Your task to perform on an android device: Clear the cart on newegg. Image 0: 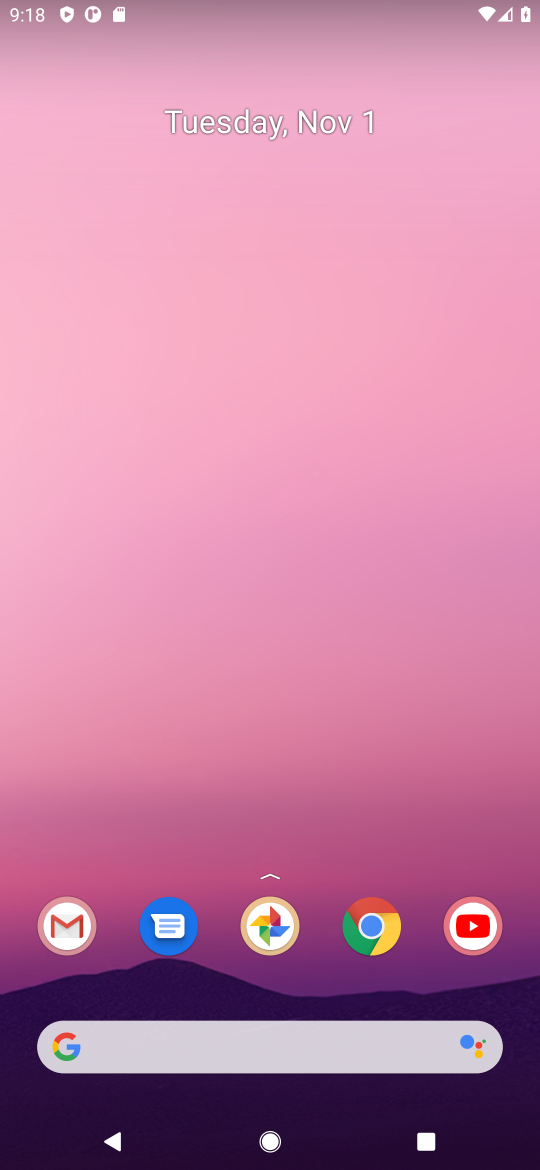
Step 0: press home button
Your task to perform on an android device: Clear the cart on newegg. Image 1: 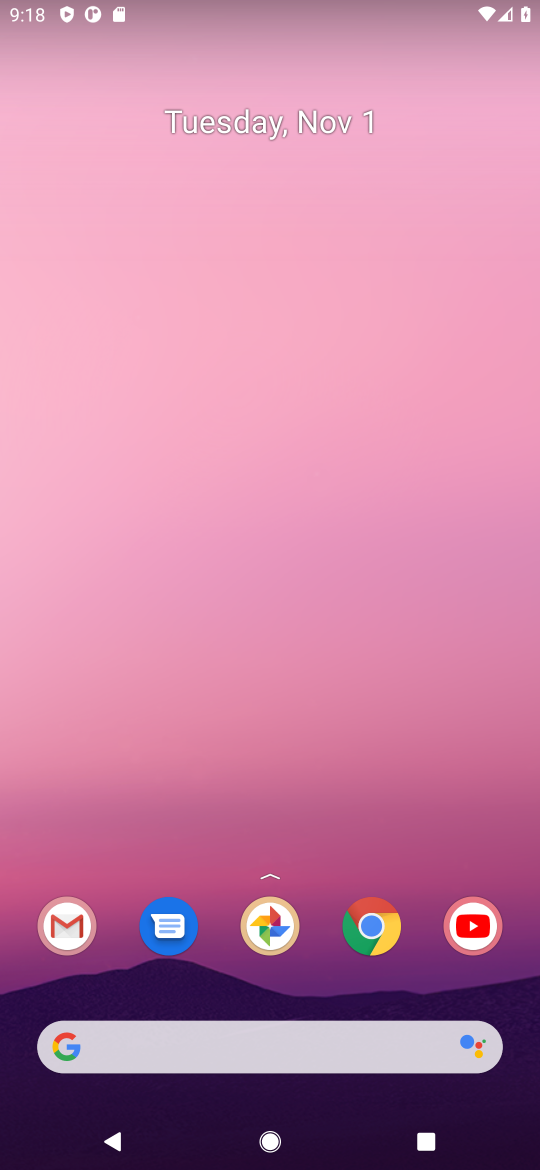
Step 1: click (363, 905)
Your task to perform on an android device: Clear the cart on newegg. Image 2: 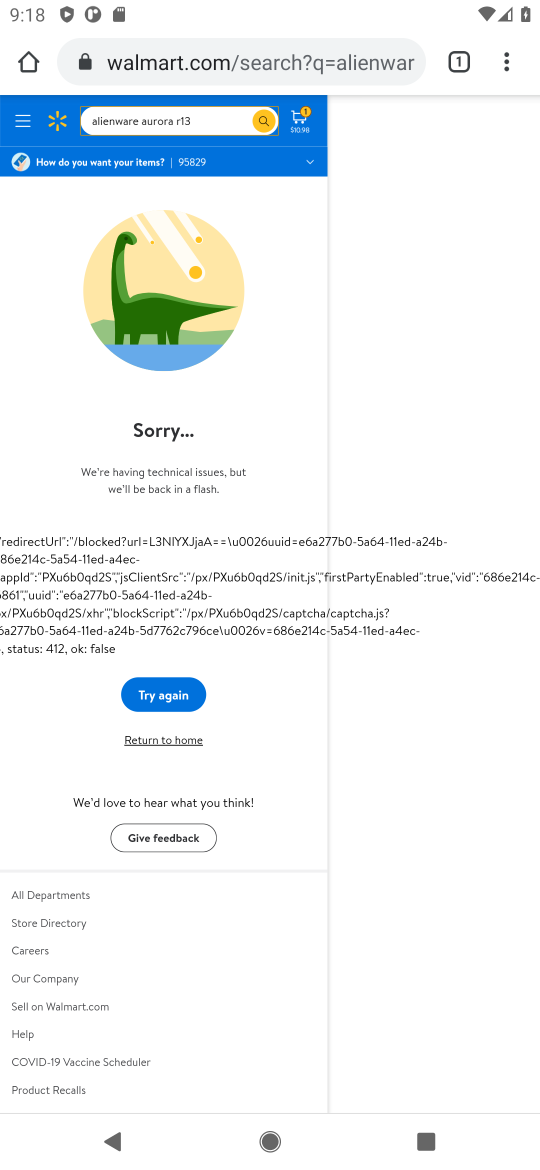
Step 2: click (180, 61)
Your task to perform on an android device: Clear the cart on newegg. Image 3: 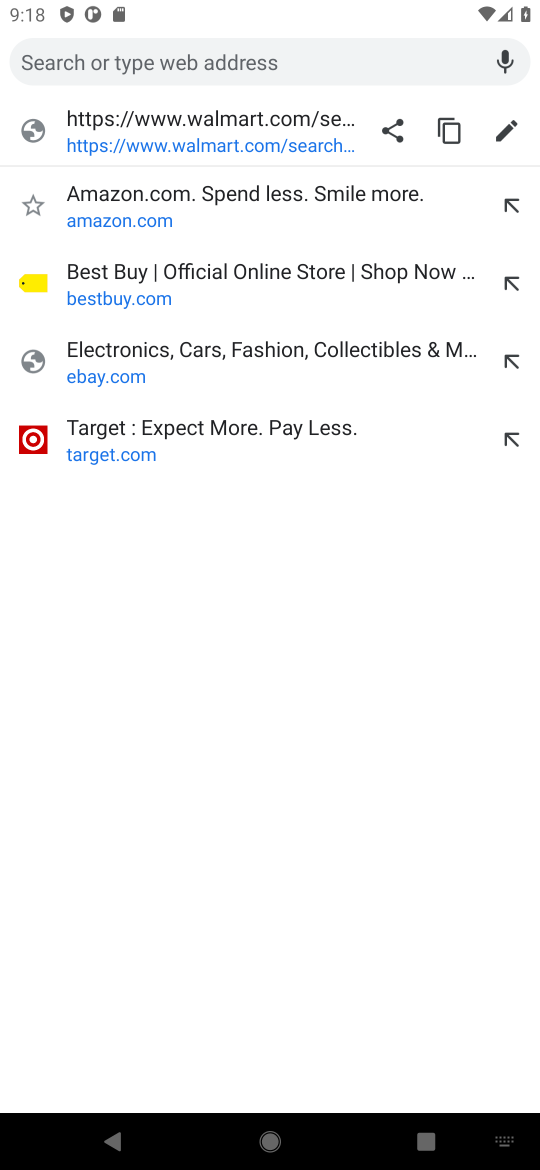
Step 3: type "newegg"
Your task to perform on an android device: Clear the cart on newegg. Image 4: 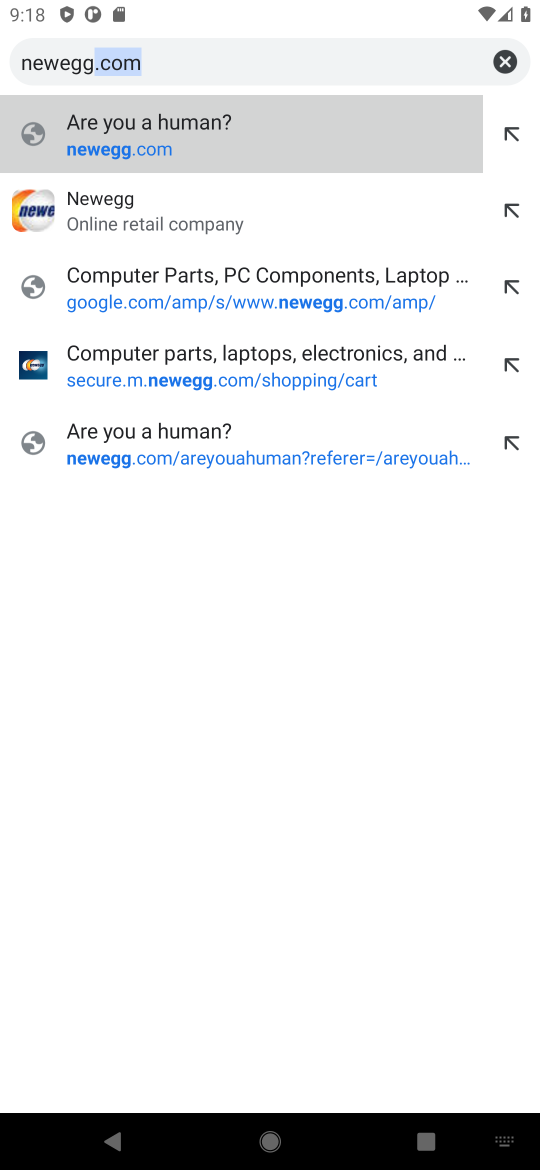
Step 4: type ""
Your task to perform on an android device: Clear the cart on newegg. Image 5: 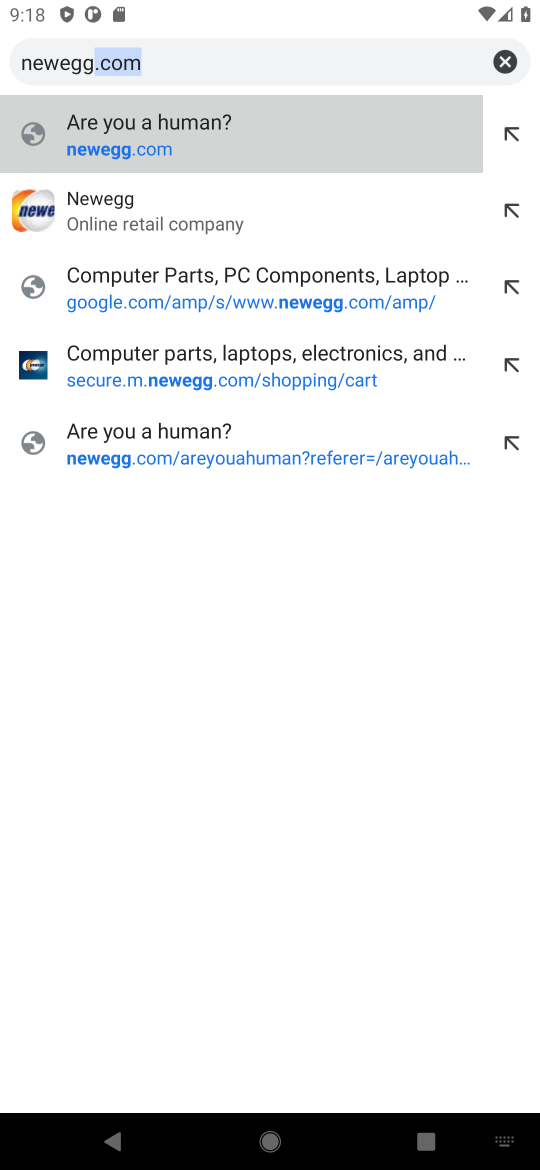
Step 5: click (101, 222)
Your task to perform on an android device: Clear the cart on newegg. Image 6: 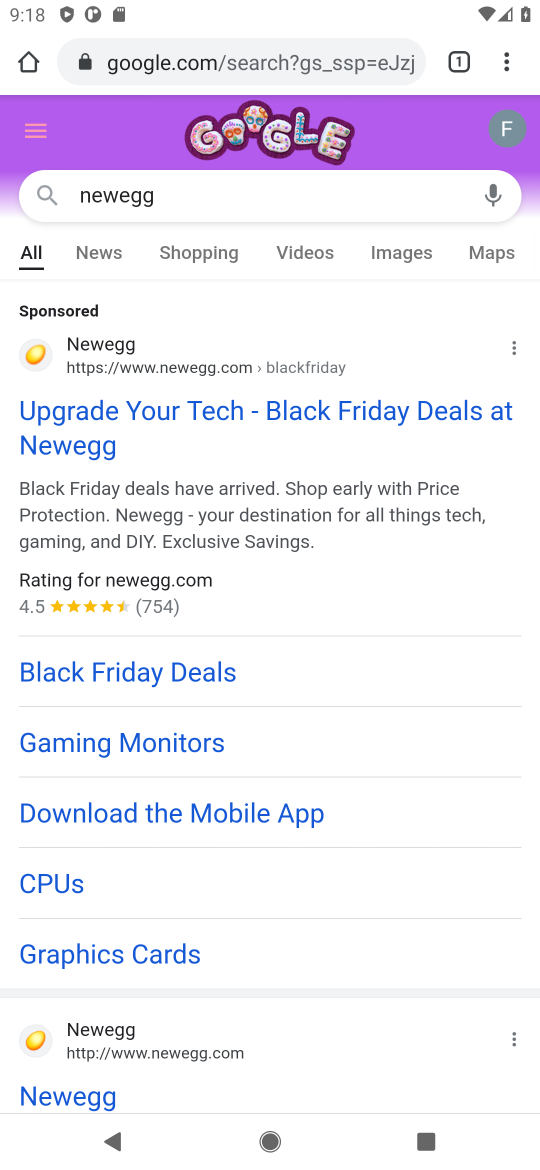
Step 6: drag from (172, 587) to (166, 188)
Your task to perform on an android device: Clear the cart on newegg. Image 7: 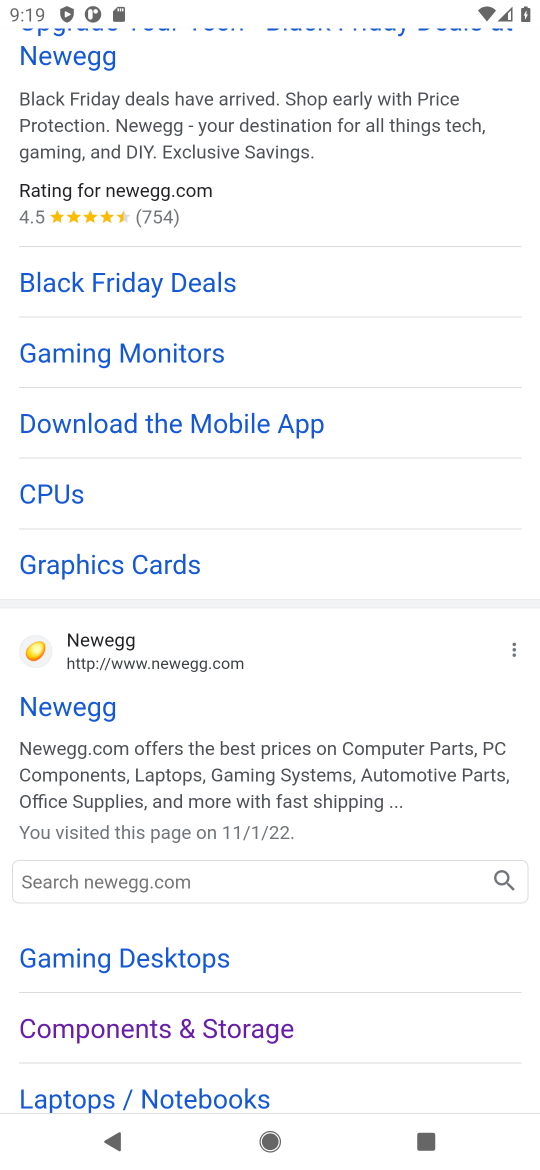
Step 7: click (71, 704)
Your task to perform on an android device: Clear the cart on newegg. Image 8: 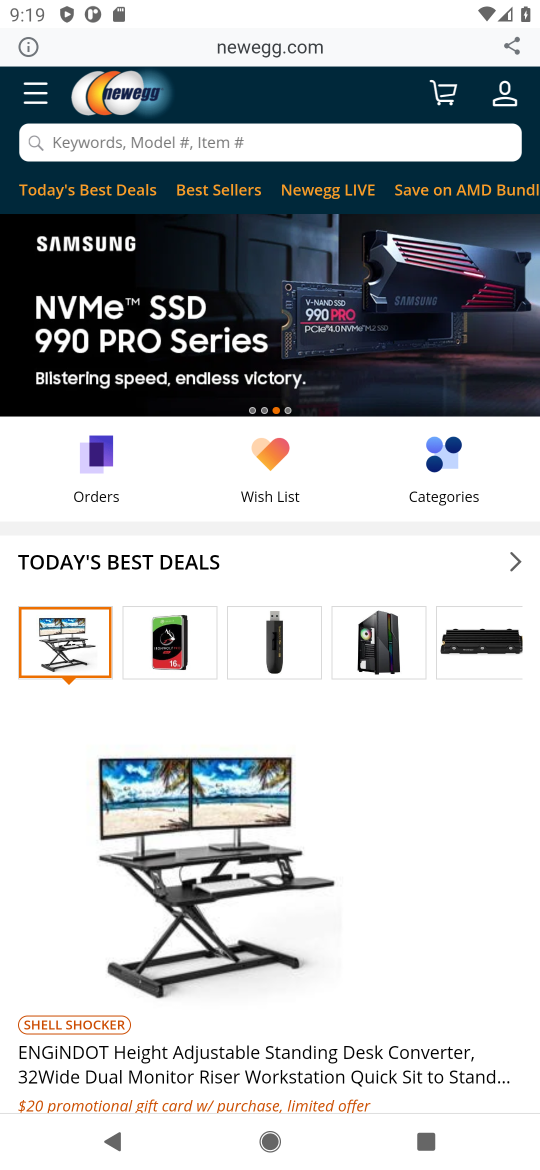
Step 8: click (261, 147)
Your task to perform on an android device: Clear the cart on newegg. Image 9: 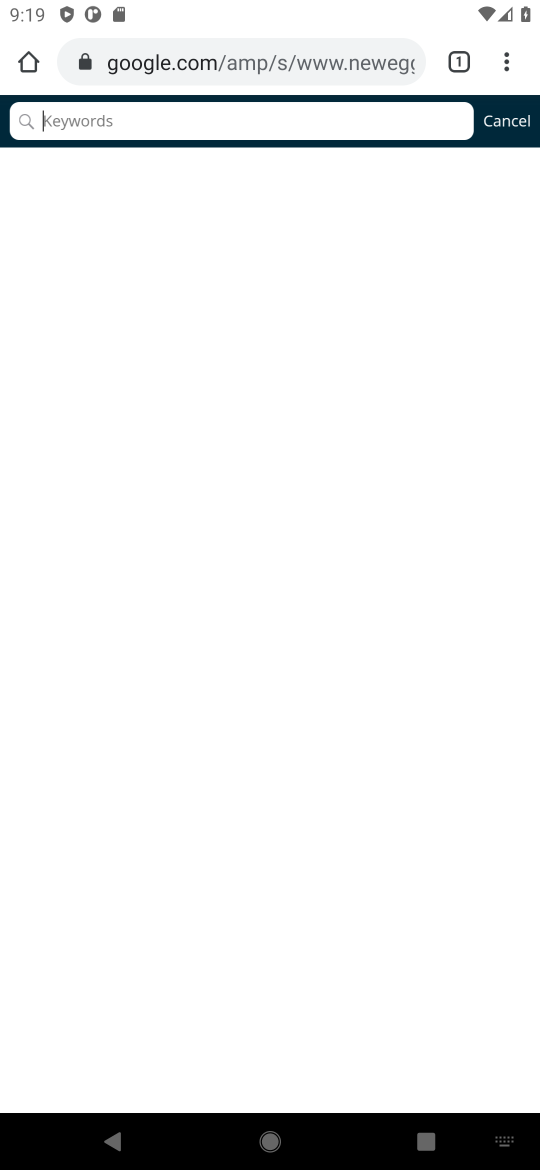
Step 9: press back button
Your task to perform on an android device: Clear the cart on newegg. Image 10: 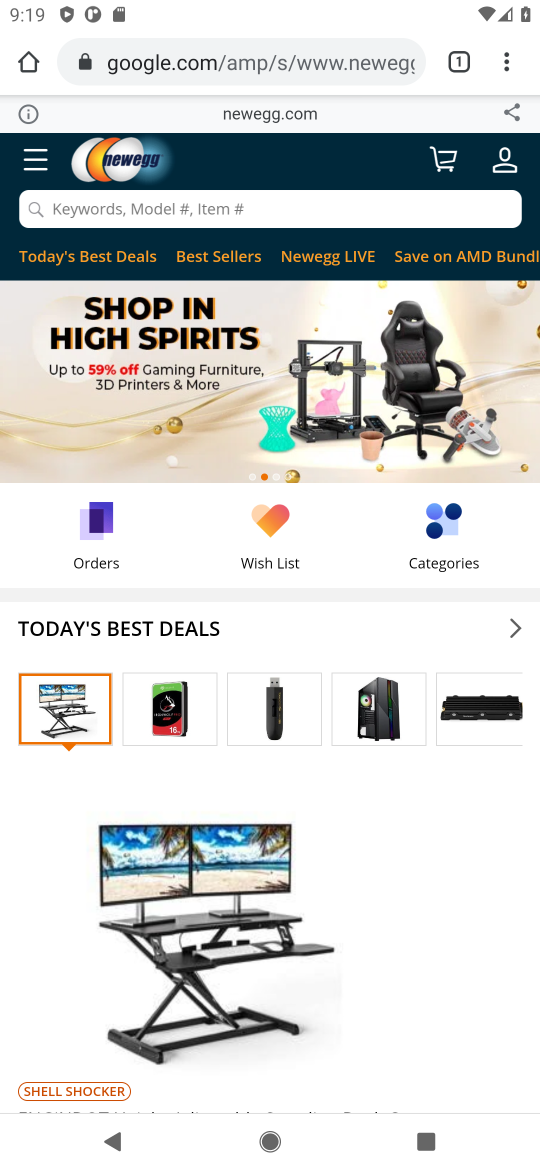
Step 10: click (451, 164)
Your task to perform on an android device: Clear the cart on newegg. Image 11: 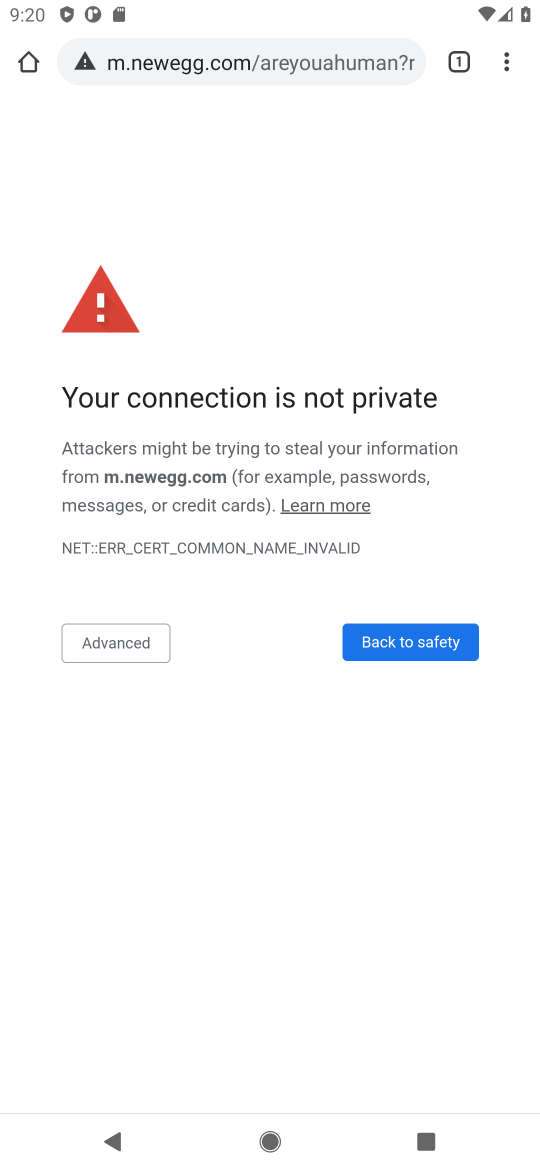
Step 11: task complete